Your task to perform on an android device: Add beats solo 3 to the cart on costco Image 0: 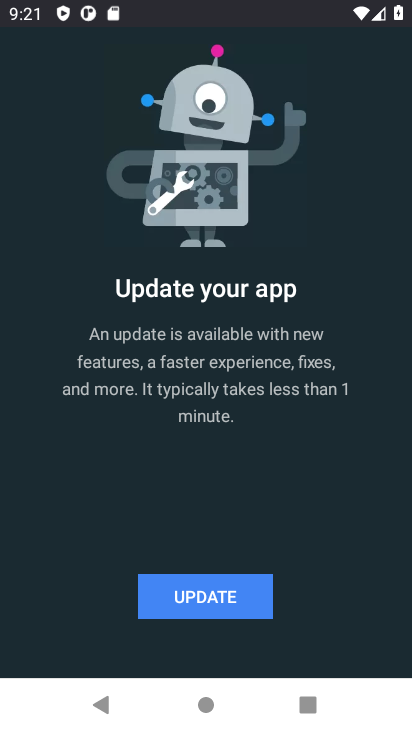
Step 0: press home button
Your task to perform on an android device: Add beats solo 3 to the cart on costco Image 1: 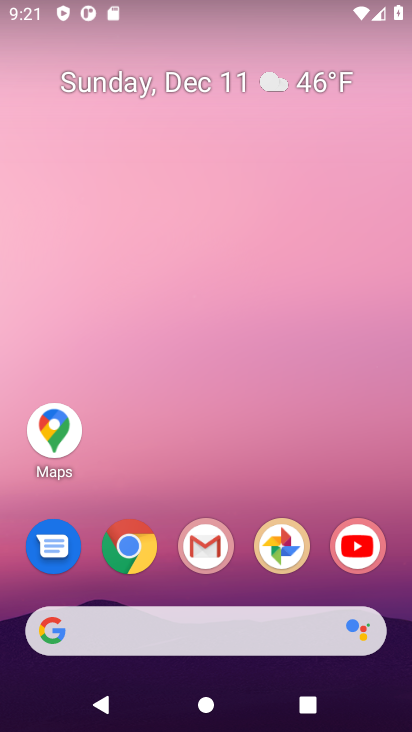
Step 1: click (129, 543)
Your task to perform on an android device: Add beats solo 3 to the cart on costco Image 2: 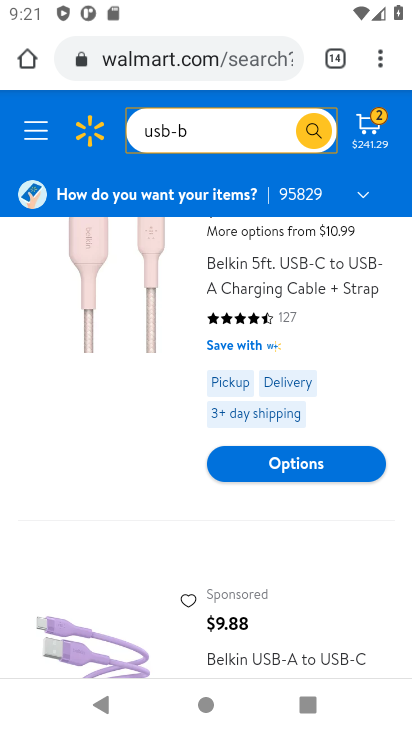
Step 2: click (177, 55)
Your task to perform on an android device: Add beats solo 3 to the cart on costco Image 3: 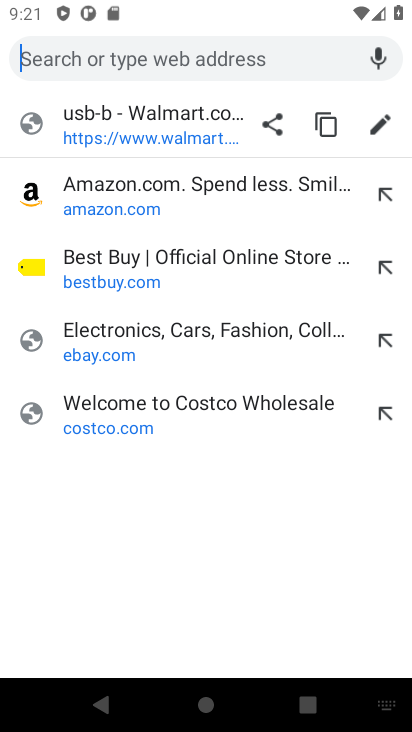
Step 3: click (98, 409)
Your task to perform on an android device: Add beats solo 3 to the cart on costco Image 4: 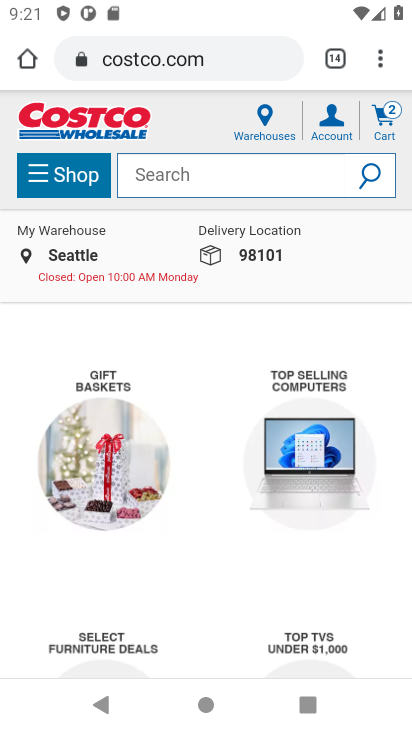
Step 4: click (232, 177)
Your task to perform on an android device: Add beats solo 3 to the cart on costco Image 5: 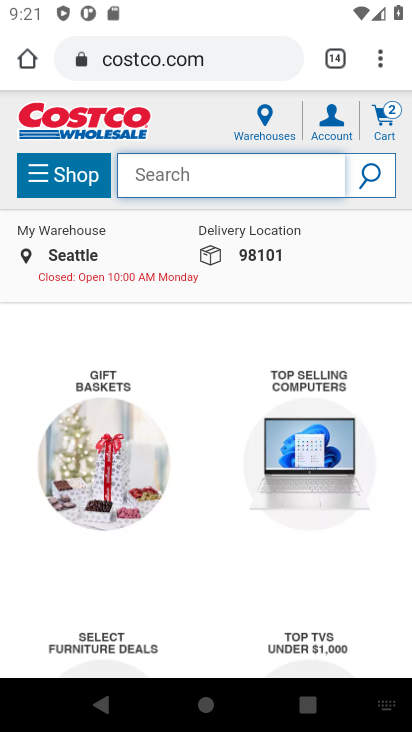
Step 5: type "beats solo 3 "
Your task to perform on an android device: Add beats solo 3 to the cart on costco Image 6: 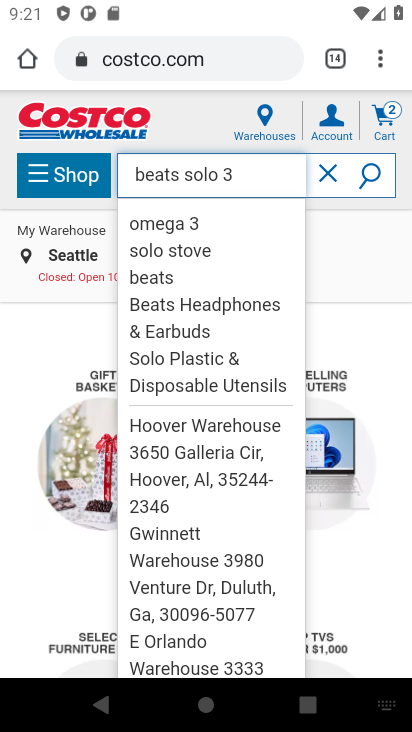
Step 6: click (362, 171)
Your task to perform on an android device: Add beats solo 3 to the cart on costco Image 7: 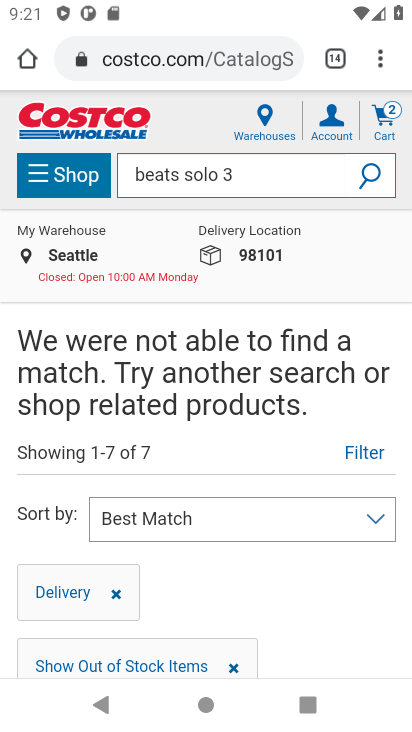
Step 7: task complete